Your task to perform on an android device: Check the weather Image 0: 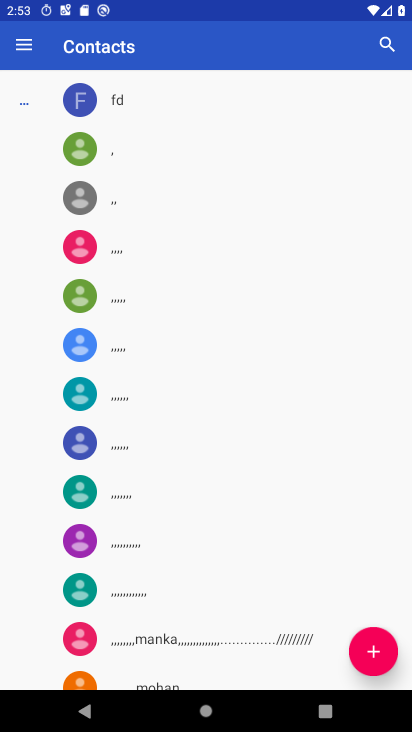
Step 0: press home button
Your task to perform on an android device: Check the weather Image 1: 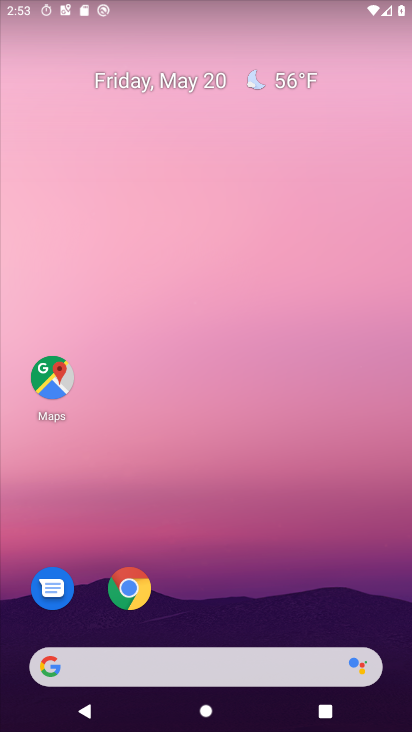
Step 1: click (168, 666)
Your task to perform on an android device: Check the weather Image 2: 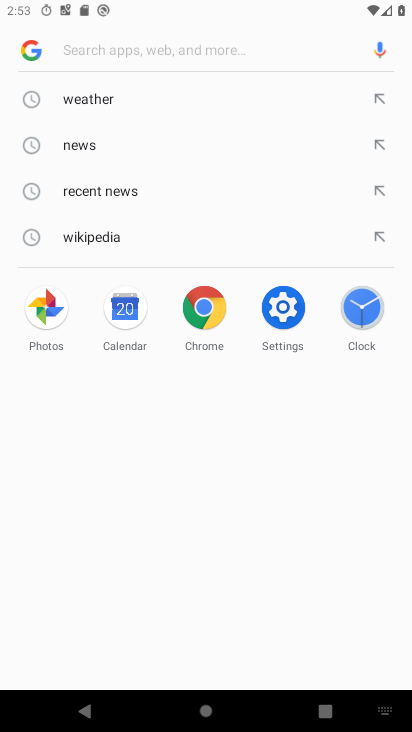
Step 2: click (136, 107)
Your task to perform on an android device: Check the weather Image 3: 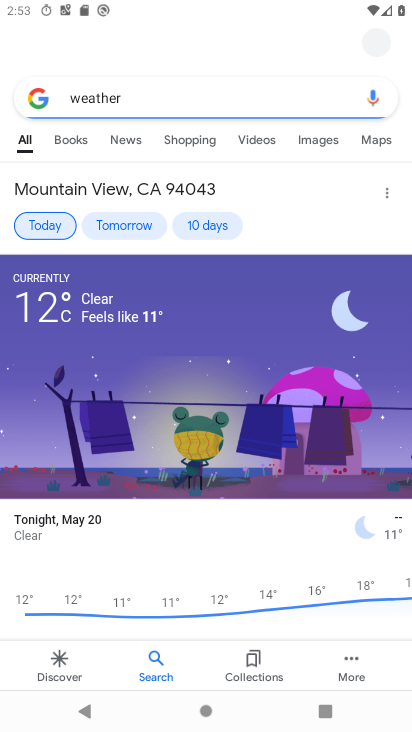
Step 3: task complete